Your task to perform on an android device: Open notification settings Image 0: 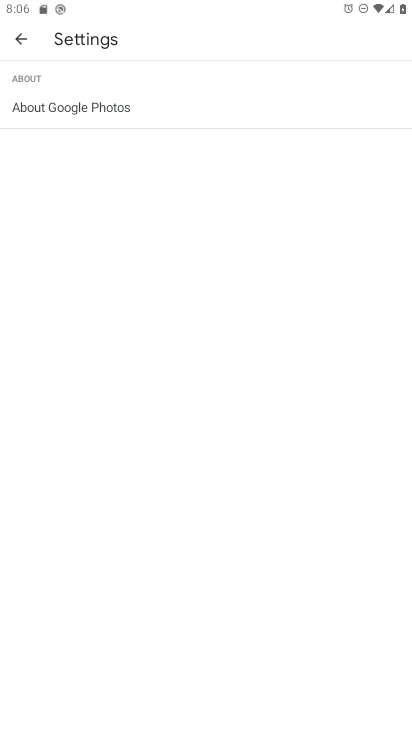
Step 0: press home button
Your task to perform on an android device: Open notification settings Image 1: 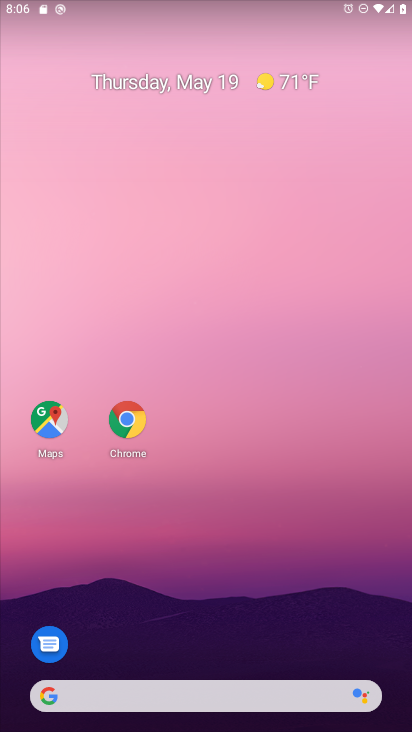
Step 1: drag from (152, 666) to (315, 177)
Your task to perform on an android device: Open notification settings Image 2: 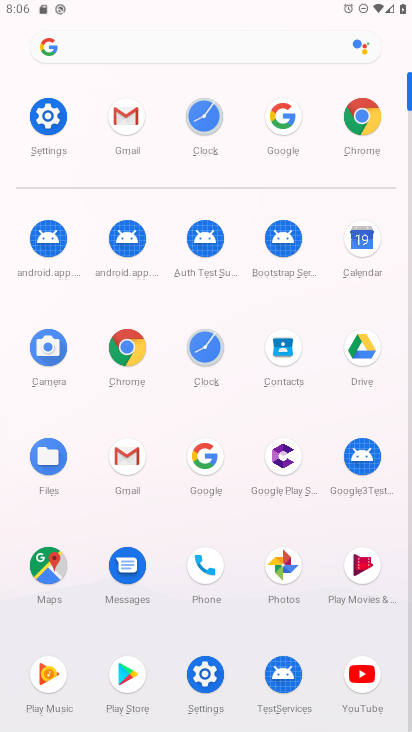
Step 2: click (216, 675)
Your task to perform on an android device: Open notification settings Image 3: 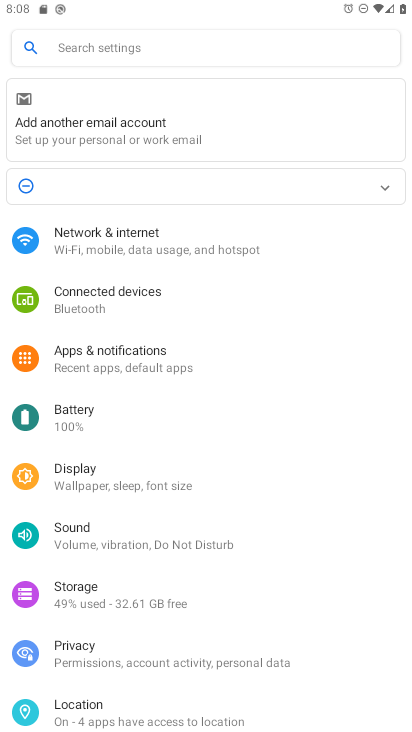
Step 3: click (77, 362)
Your task to perform on an android device: Open notification settings Image 4: 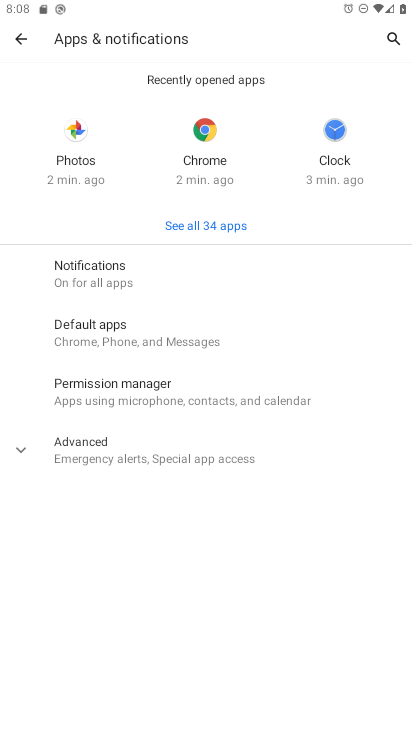
Step 4: click (98, 457)
Your task to perform on an android device: Open notification settings Image 5: 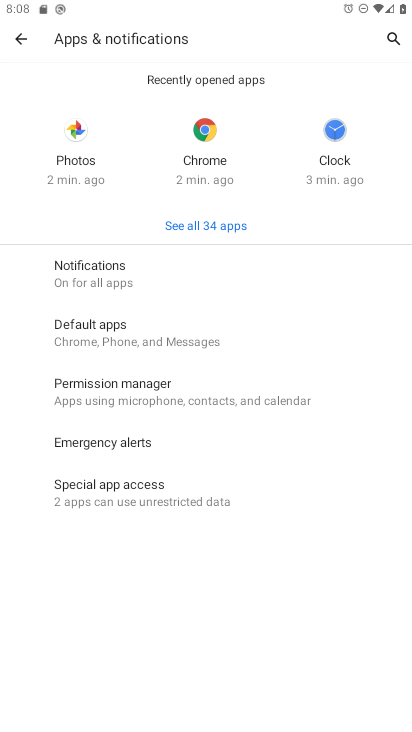
Step 5: task complete